Your task to perform on an android device: turn off wifi Image 0: 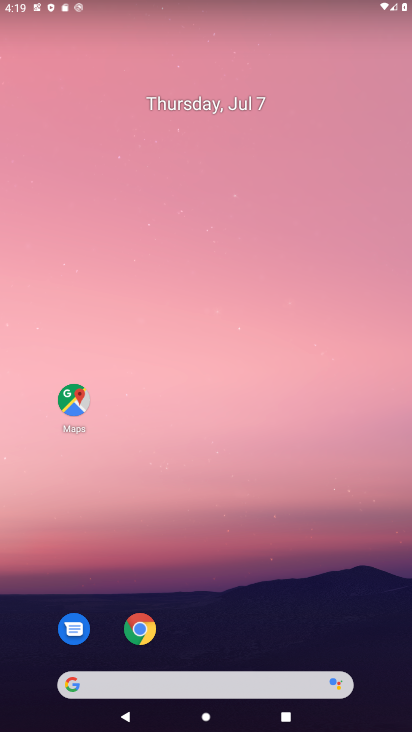
Step 0: drag from (221, 688) to (247, 154)
Your task to perform on an android device: turn off wifi Image 1: 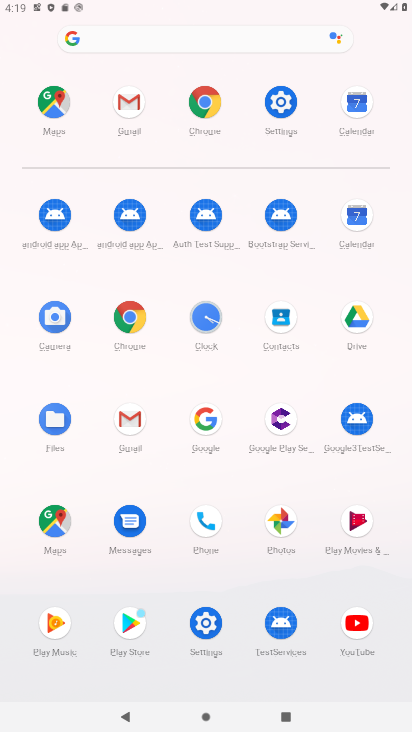
Step 1: click (287, 105)
Your task to perform on an android device: turn off wifi Image 2: 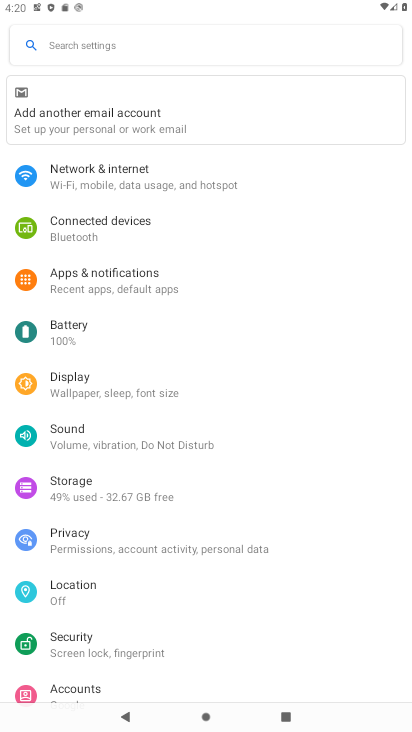
Step 2: click (163, 169)
Your task to perform on an android device: turn off wifi Image 3: 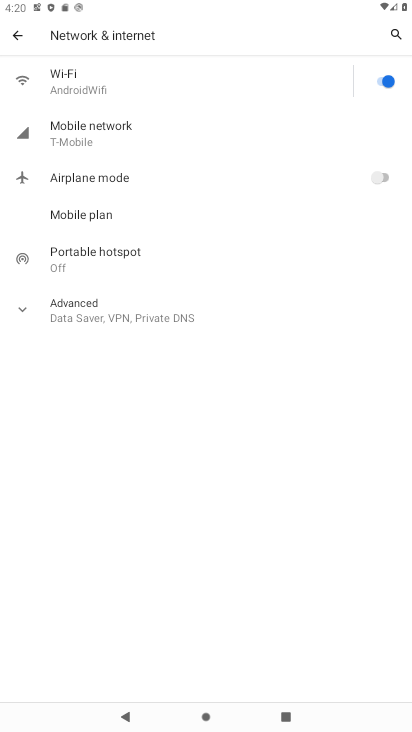
Step 3: click (368, 79)
Your task to perform on an android device: turn off wifi Image 4: 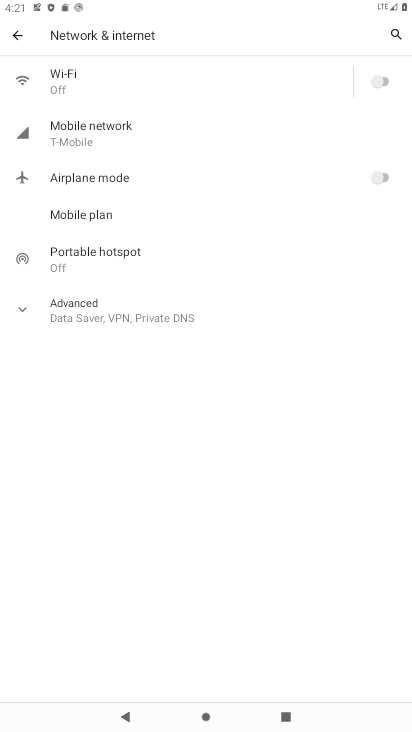
Step 4: task complete